Your task to perform on an android device: toggle priority inbox in the gmail app Image 0: 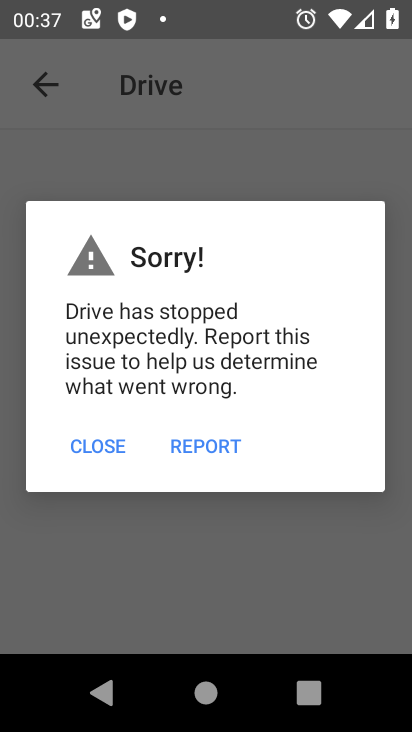
Step 0: task impossible